Your task to perform on an android device: Go to accessibility settings Image 0: 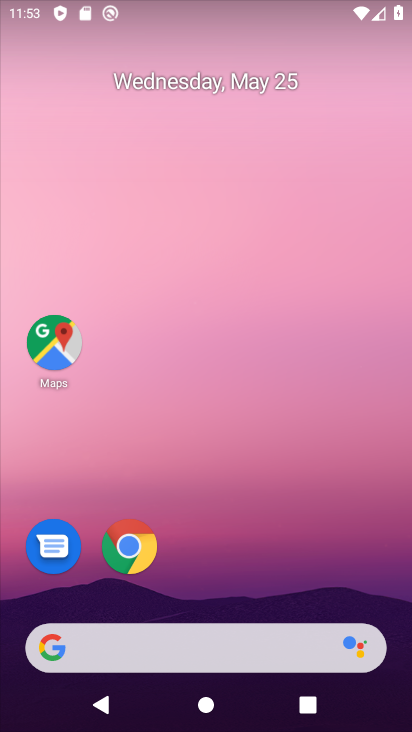
Step 0: drag from (216, 614) to (276, 67)
Your task to perform on an android device: Go to accessibility settings Image 1: 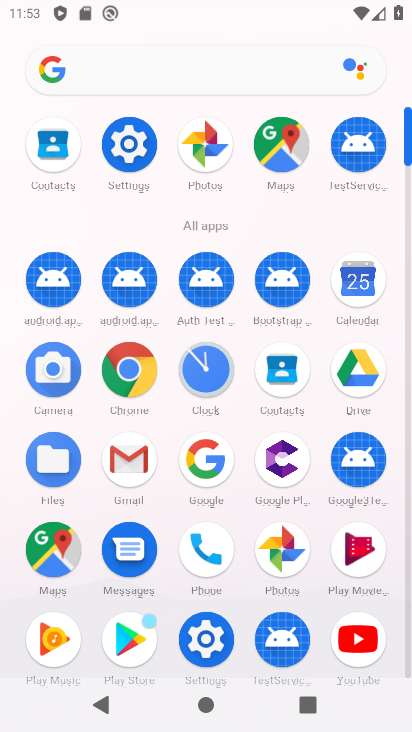
Step 1: click (136, 144)
Your task to perform on an android device: Go to accessibility settings Image 2: 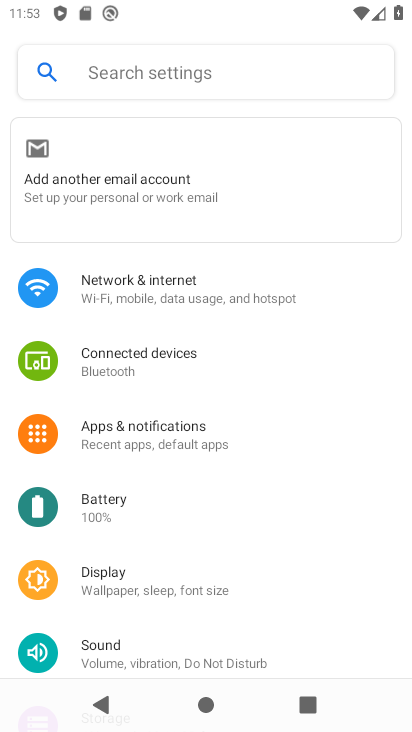
Step 2: drag from (99, 643) to (168, 109)
Your task to perform on an android device: Go to accessibility settings Image 3: 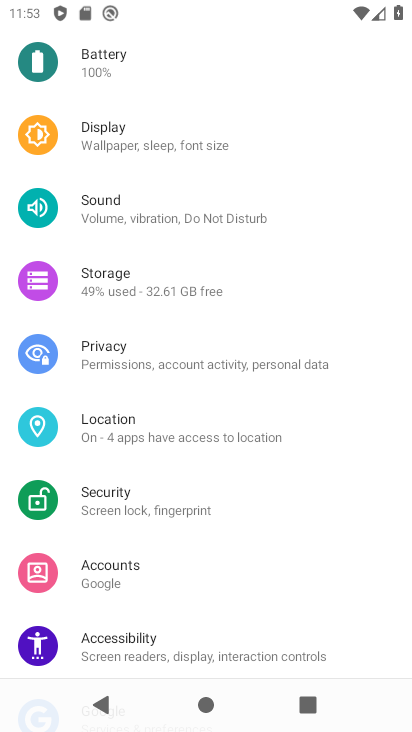
Step 3: click (111, 647)
Your task to perform on an android device: Go to accessibility settings Image 4: 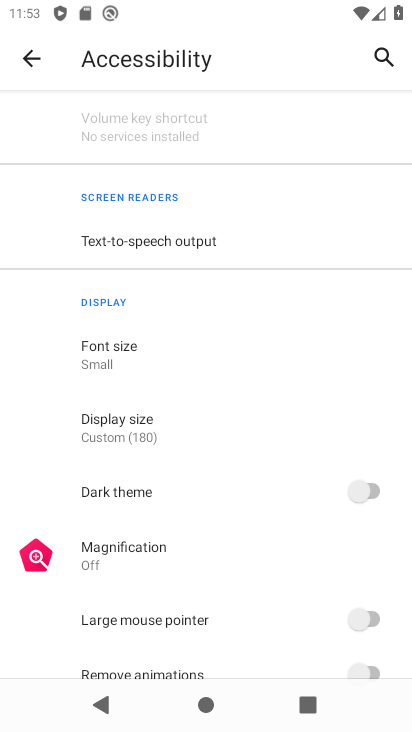
Step 4: task complete